Your task to perform on an android device: Open maps Image 0: 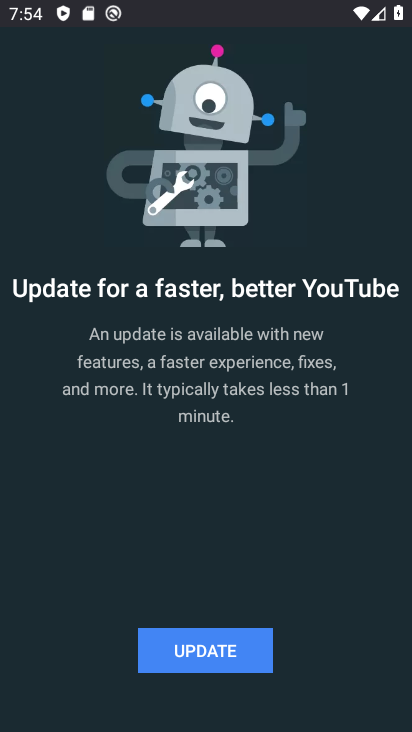
Step 0: press home button
Your task to perform on an android device: Open maps Image 1: 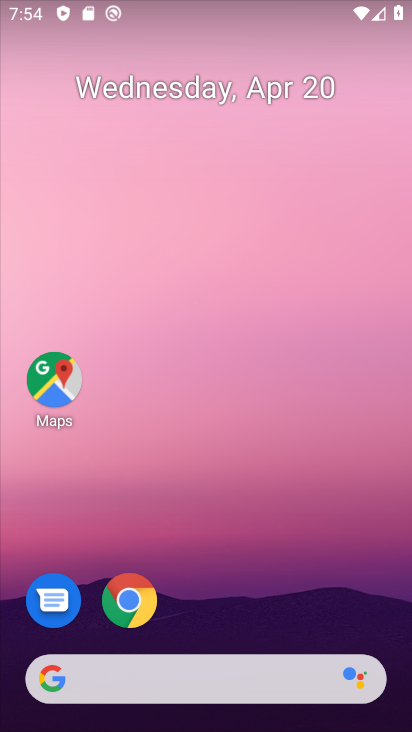
Step 1: drag from (213, 697) to (214, 147)
Your task to perform on an android device: Open maps Image 2: 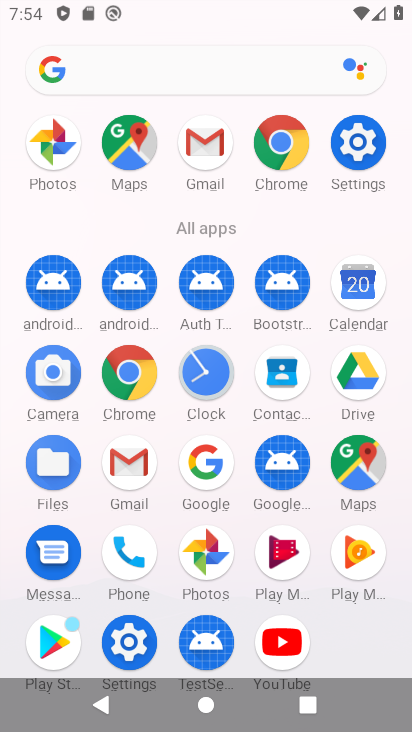
Step 2: click (126, 145)
Your task to perform on an android device: Open maps Image 3: 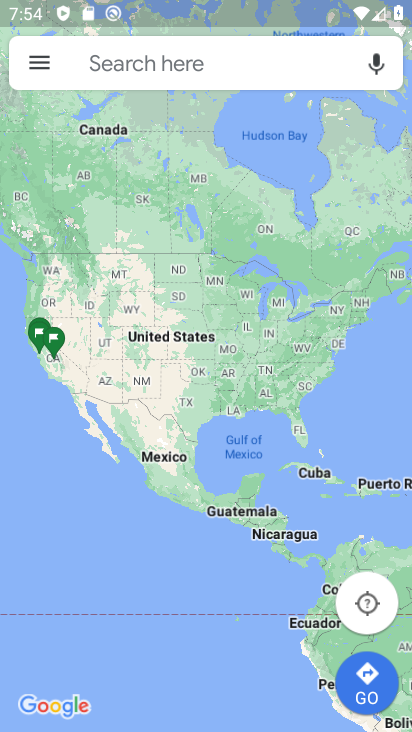
Step 3: task complete